Your task to perform on an android device: Add "dell xps" to the cart on costco.com Image 0: 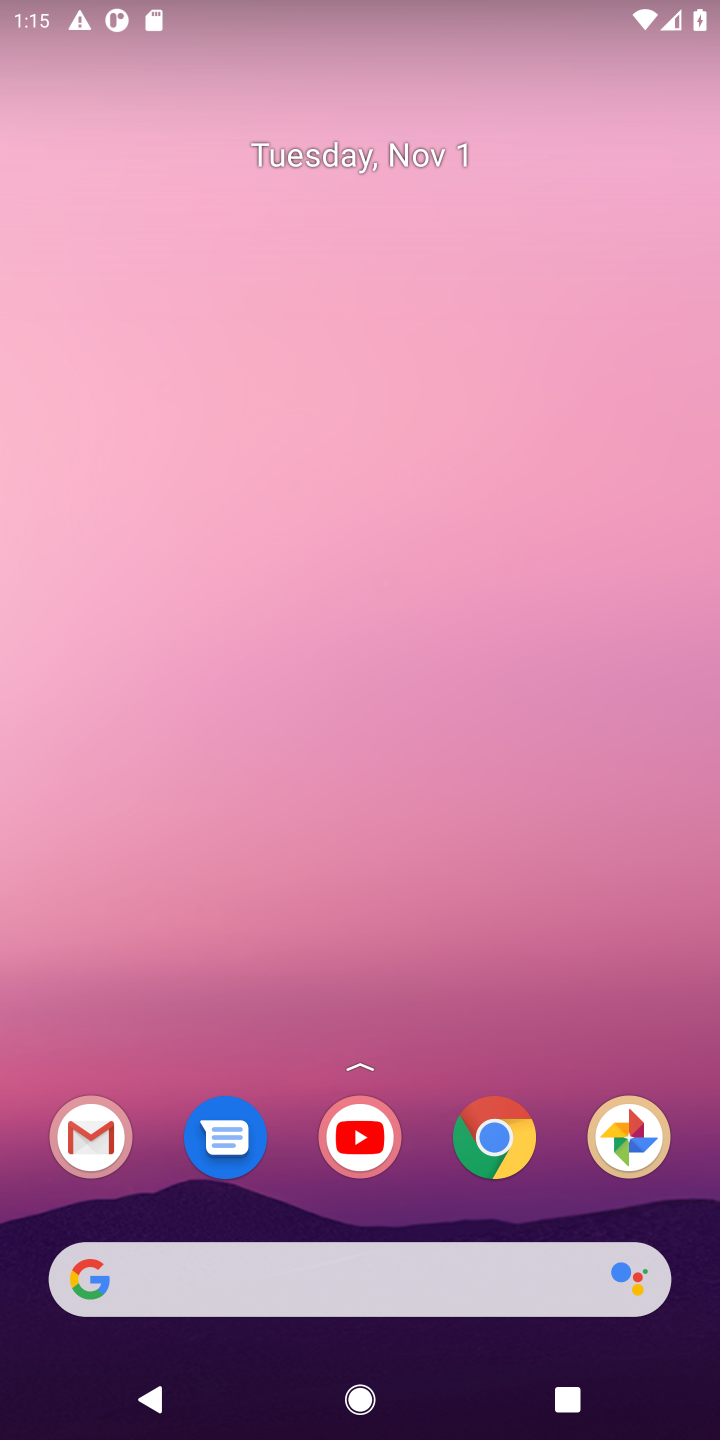
Step 0: drag from (284, 917) to (193, 216)
Your task to perform on an android device: Add "dell xps" to the cart on costco.com Image 1: 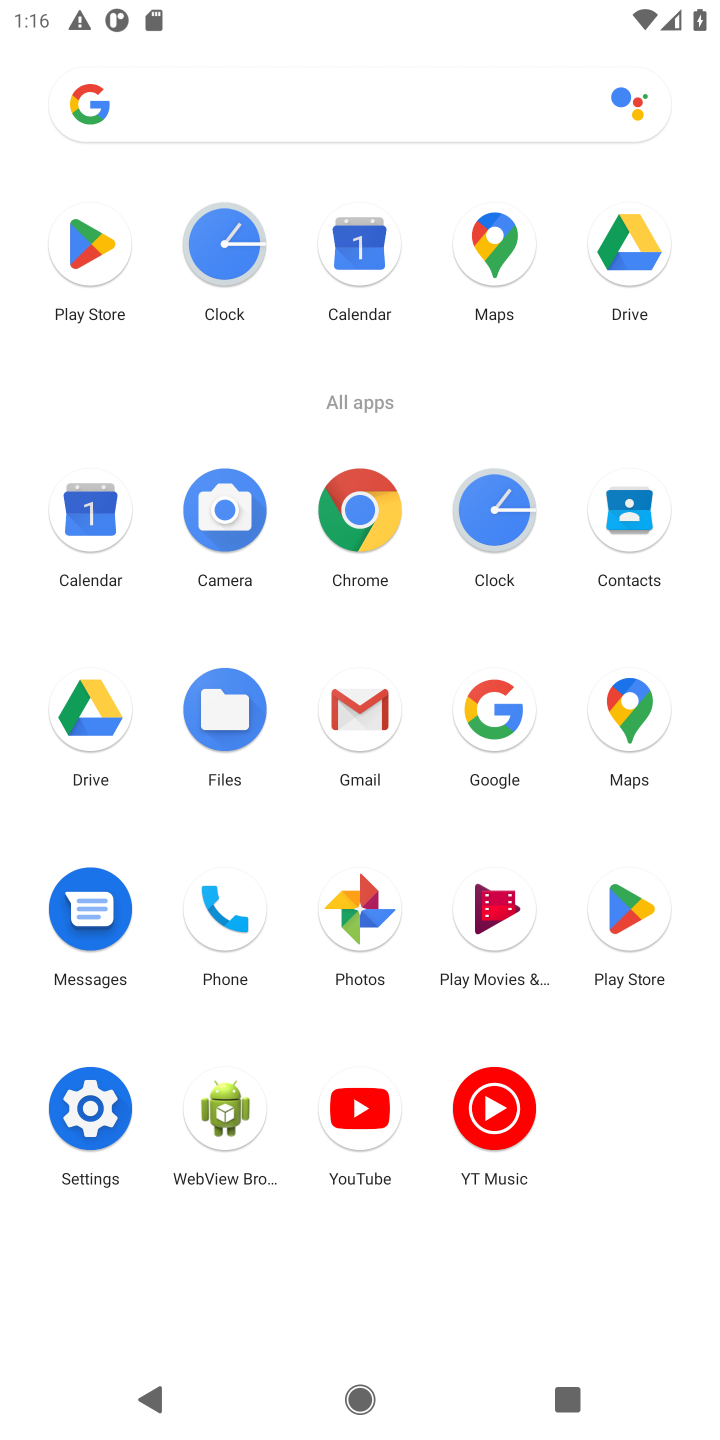
Step 1: click (355, 497)
Your task to perform on an android device: Add "dell xps" to the cart on costco.com Image 2: 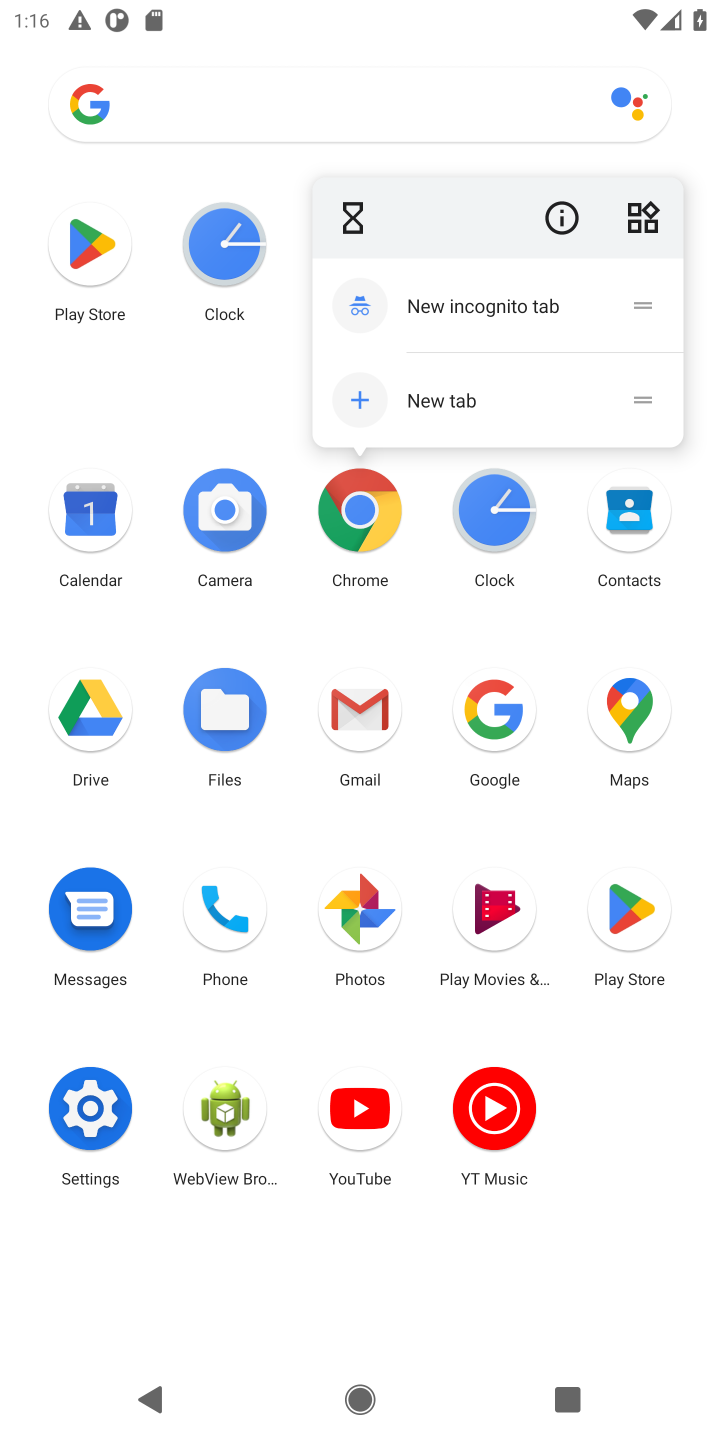
Step 2: click (343, 509)
Your task to perform on an android device: Add "dell xps" to the cart on costco.com Image 3: 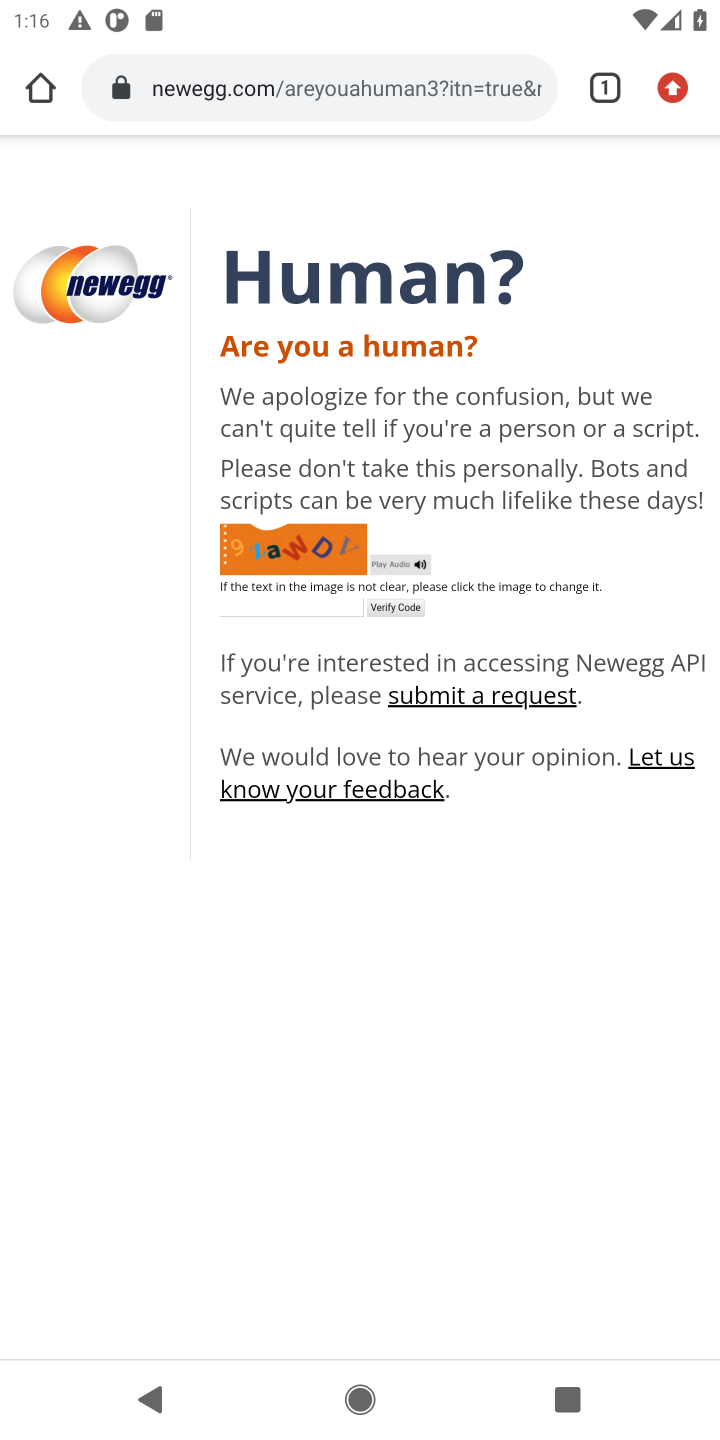
Step 3: click (384, 96)
Your task to perform on an android device: Add "dell xps" to the cart on costco.com Image 4: 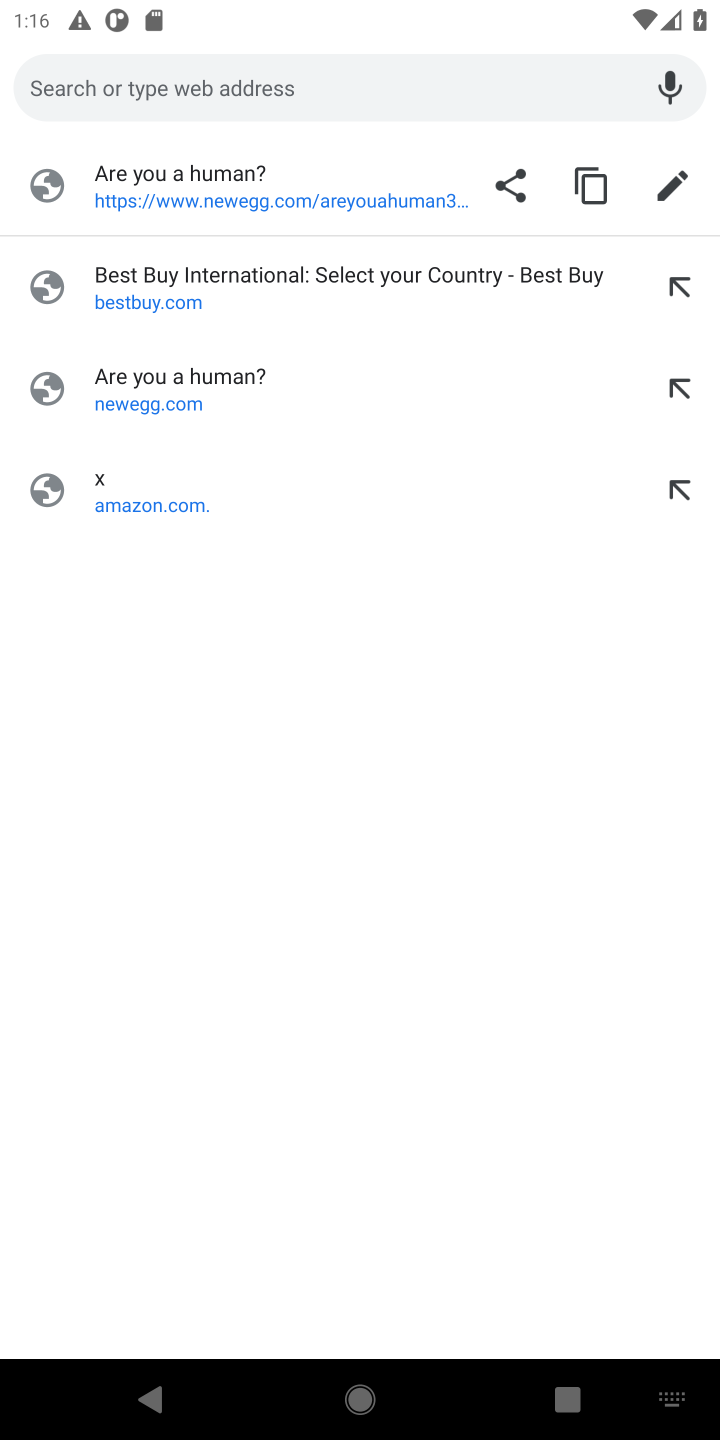
Step 4: type "costco.com"
Your task to perform on an android device: Add "dell xps" to the cart on costco.com Image 5: 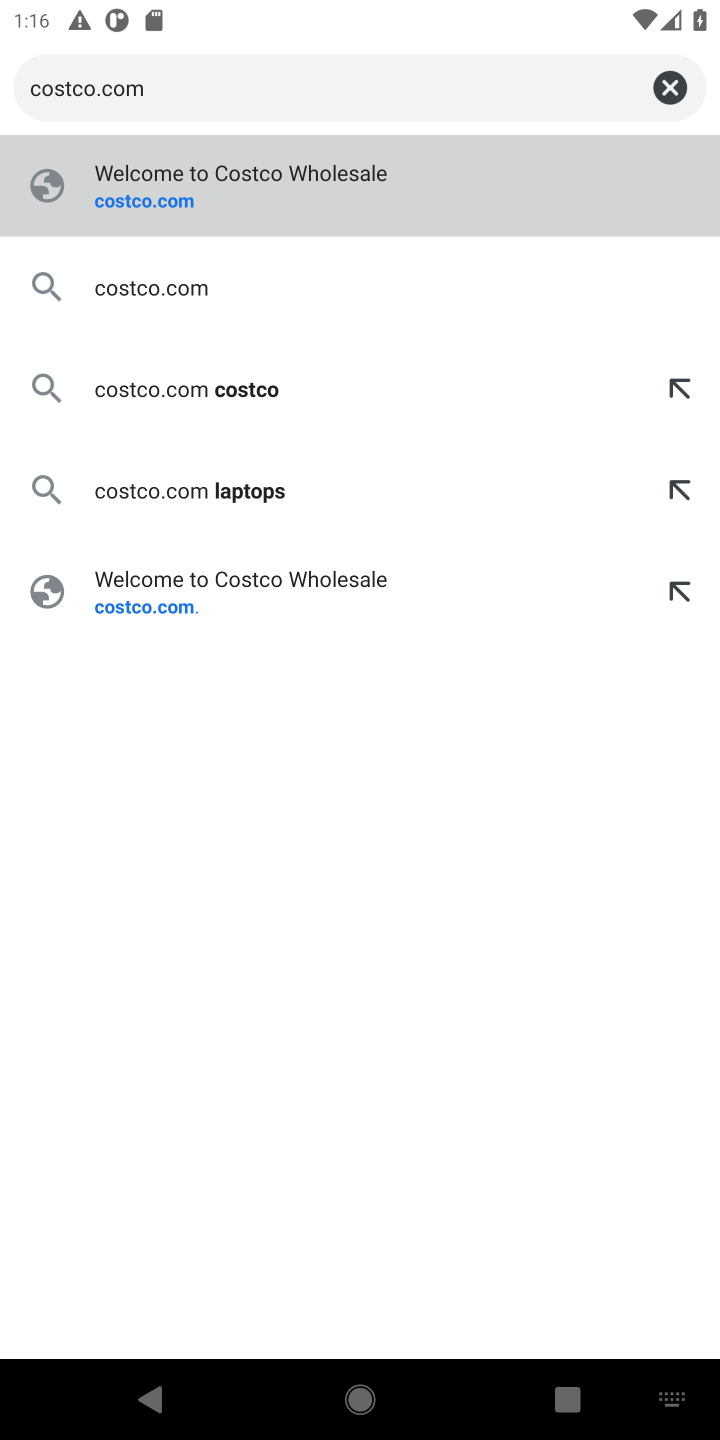
Step 5: press enter
Your task to perform on an android device: Add "dell xps" to the cart on costco.com Image 6: 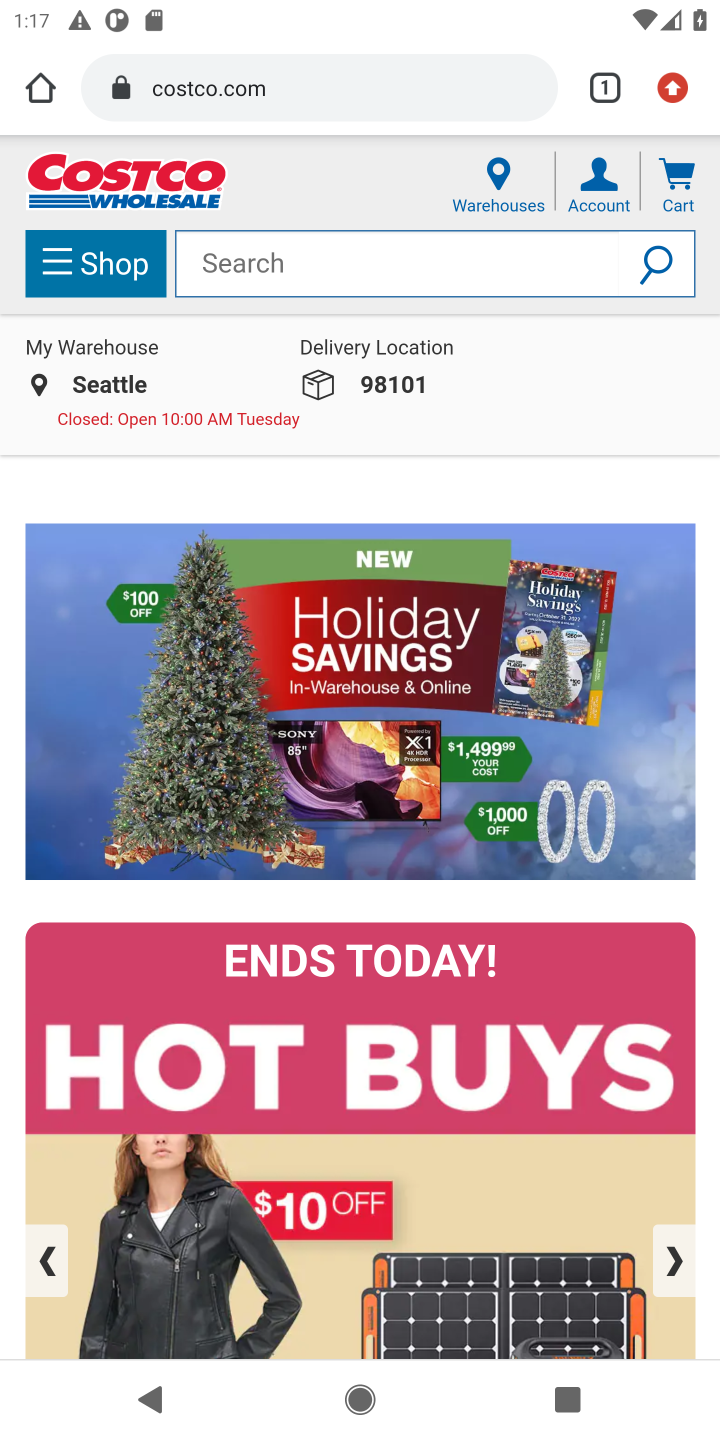
Step 6: click (303, 276)
Your task to perform on an android device: Add "dell xps" to the cart on costco.com Image 7: 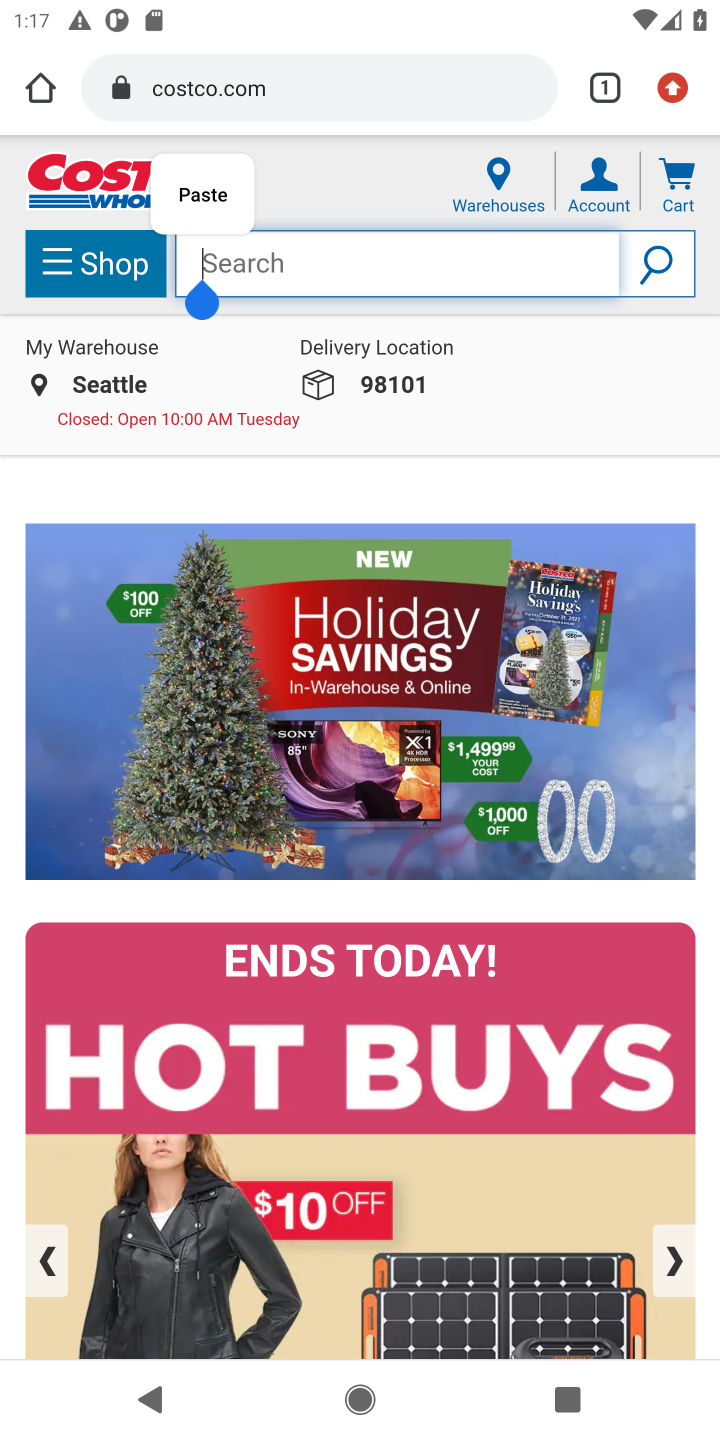
Step 7: type "dell xps"
Your task to perform on an android device: Add "dell xps" to the cart on costco.com Image 8: 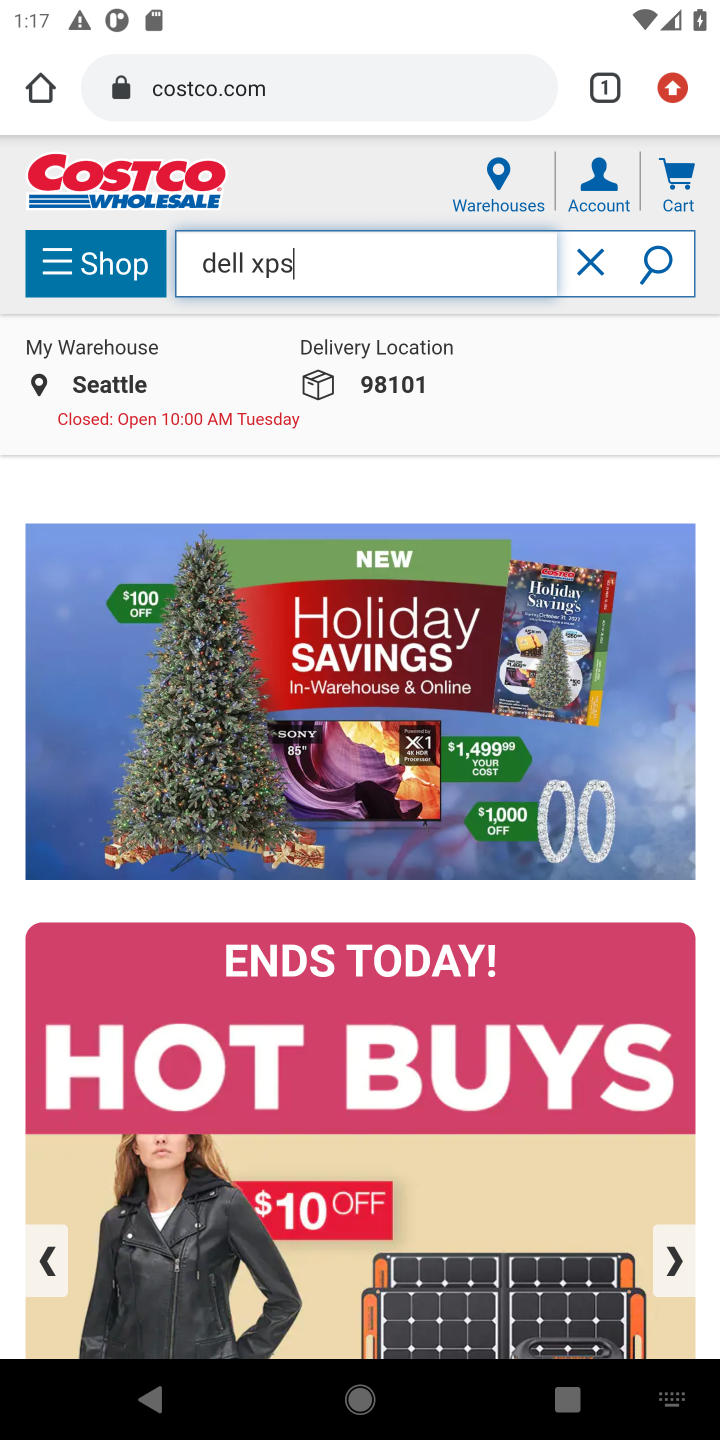
Step 8: press enter
Your task to perform on an android device: Add "dell xps" to the cart on costco.com Image 9: 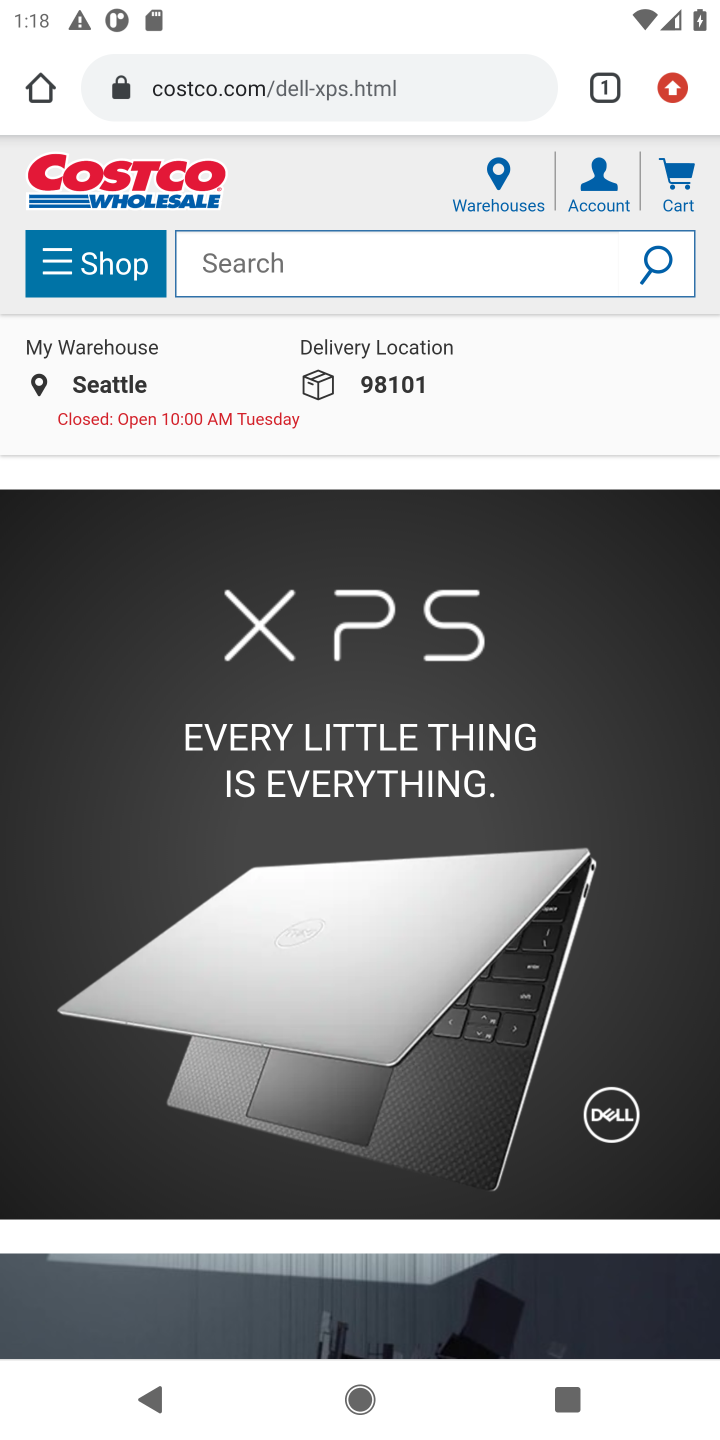
Step 9: click (500, 304)
Your task to perform on an android device: Add "dell xps" to the cart on costco.com Image 10: 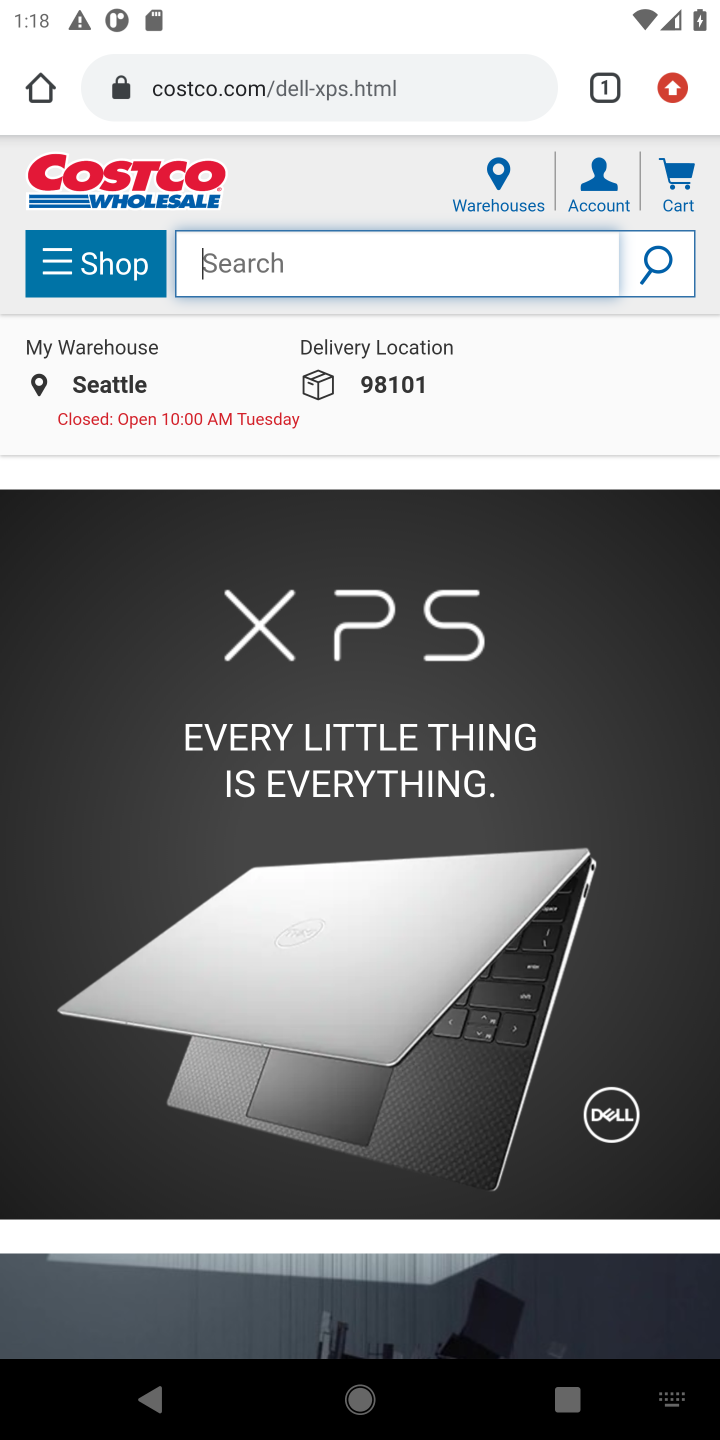
Step 10: drag from (455, 1029) to (419, 581)
Your task to perform on an android device: Add "dell xps" to the cart on costco.com Image 11: 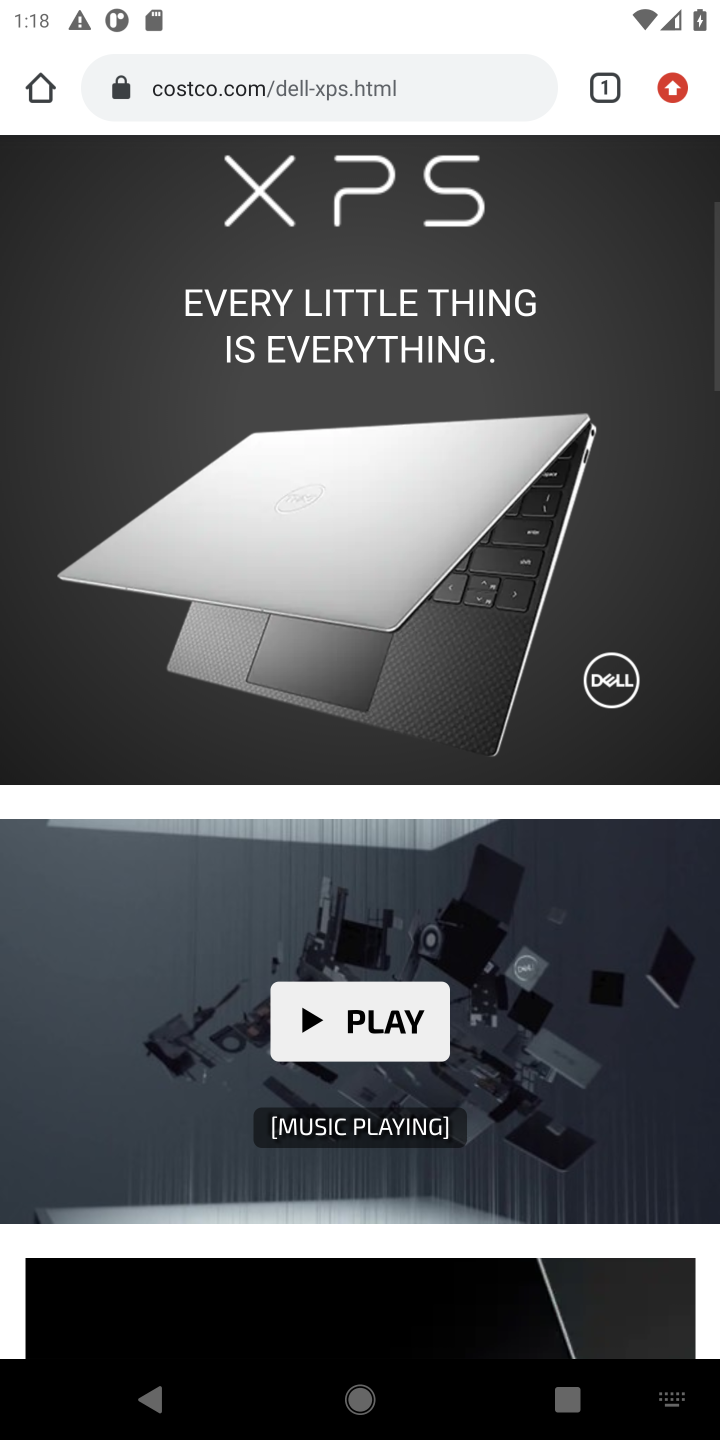
Step 11: drag from (434, 987) to (413, 437)
Your task to perform on an android device: Add "dell xps" to the cart on costco.com Image 12: 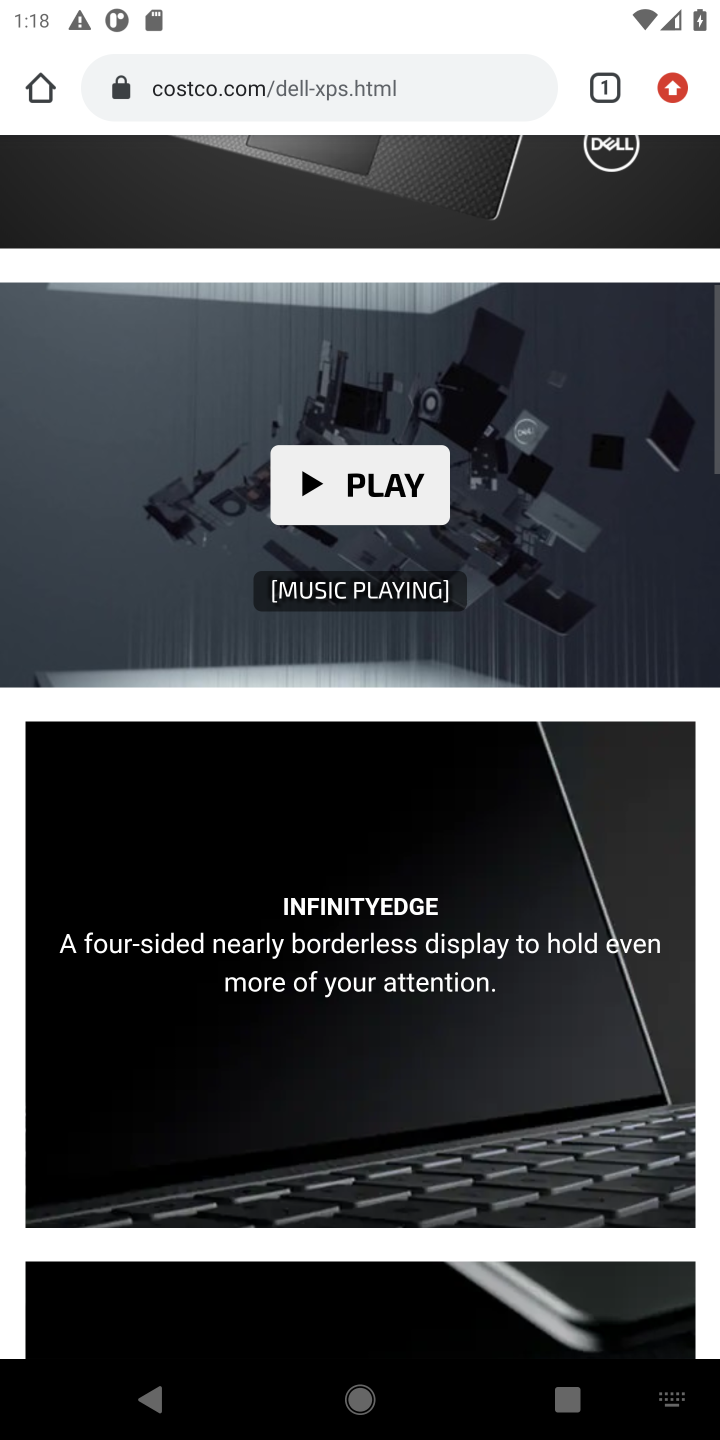
Step 12: drag from (419, 913) to (456, 302)
Your task to perform on an android device: Add "dell xps" to the cart on costco.com Image 13: 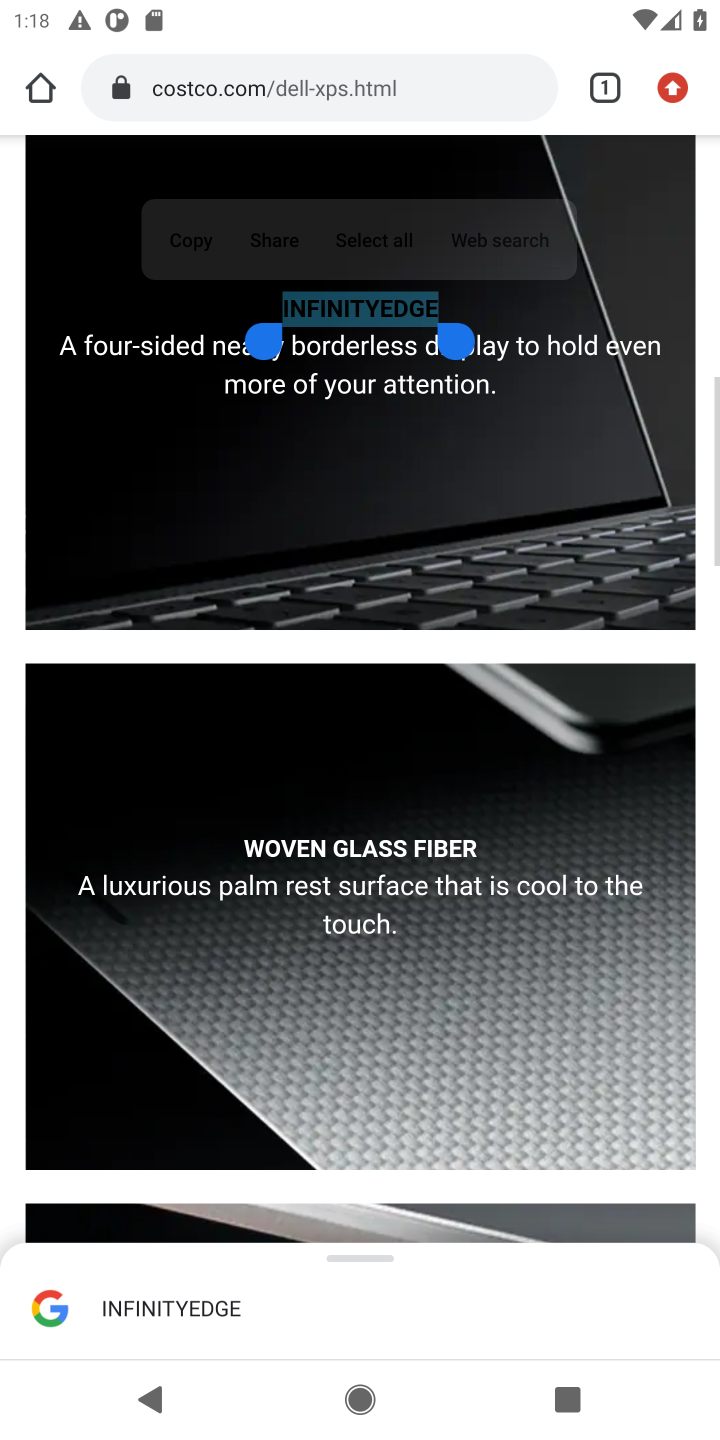
Step 13: drag from (332, 981) to (434, 420)
Your task to perform on an android device: Add "dell xps" to the cart on costco.com Image 14: 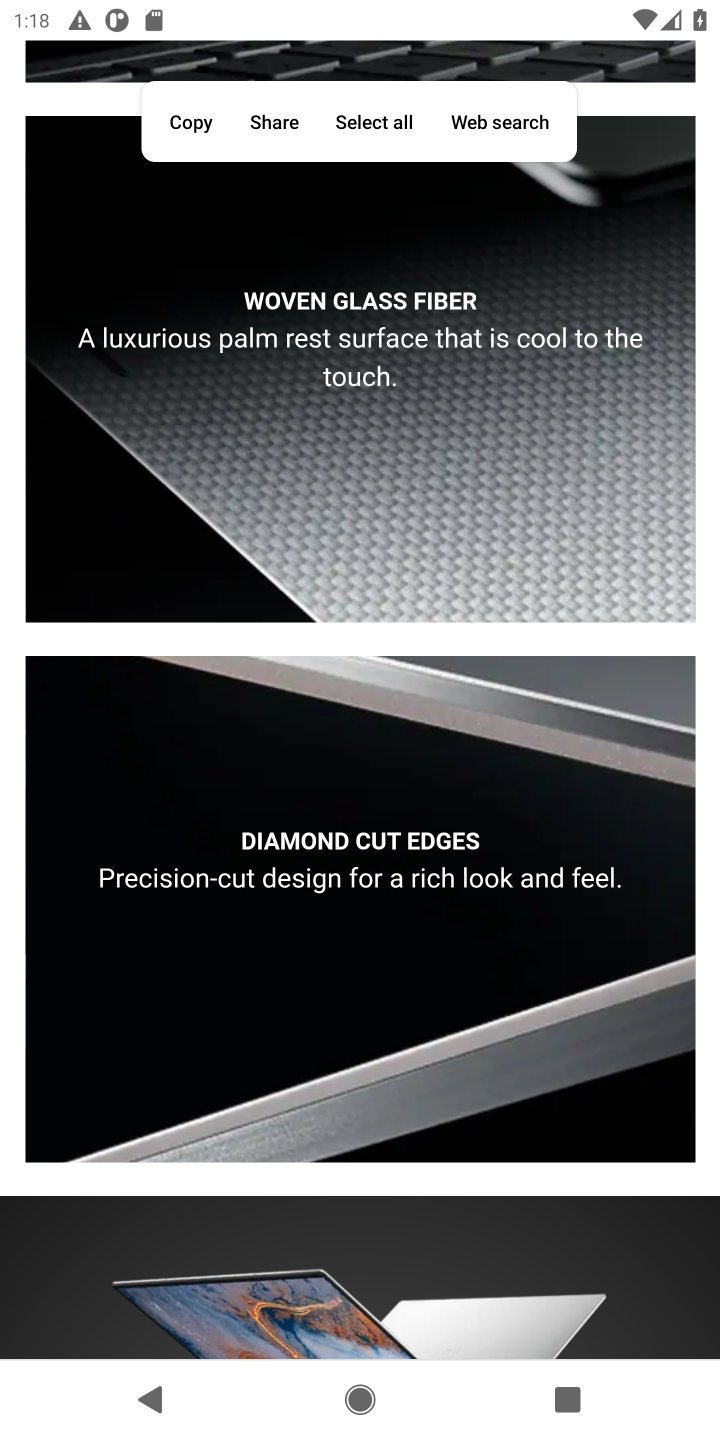
Step 14: drag from (312, 871) to (404, 186)
Your task to perform on an android device: Add "dell xps" to the cart on costco.com Image 15: 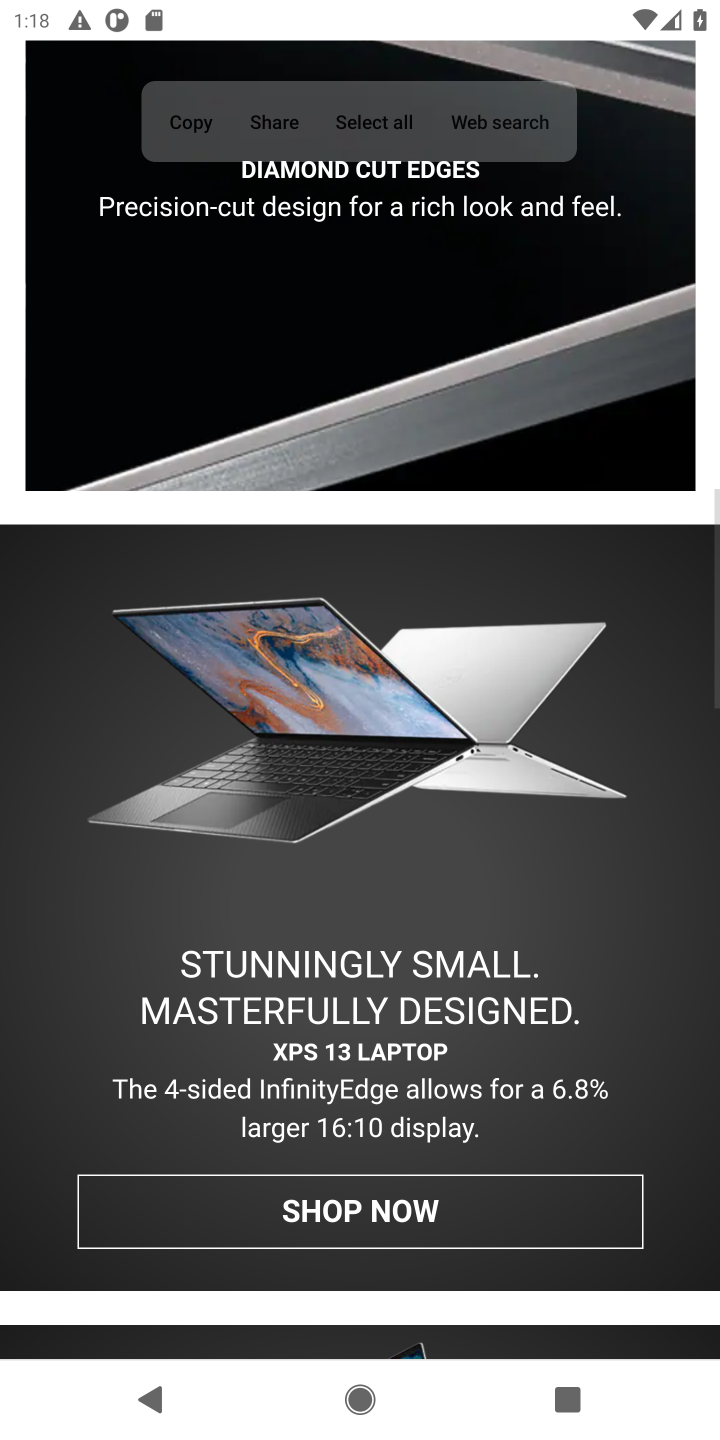
Step 15: drag from (325, 935) to (454, 365)
Your task to perform on an android device: Add "dell xps" to the cart on costco.com Image 16: 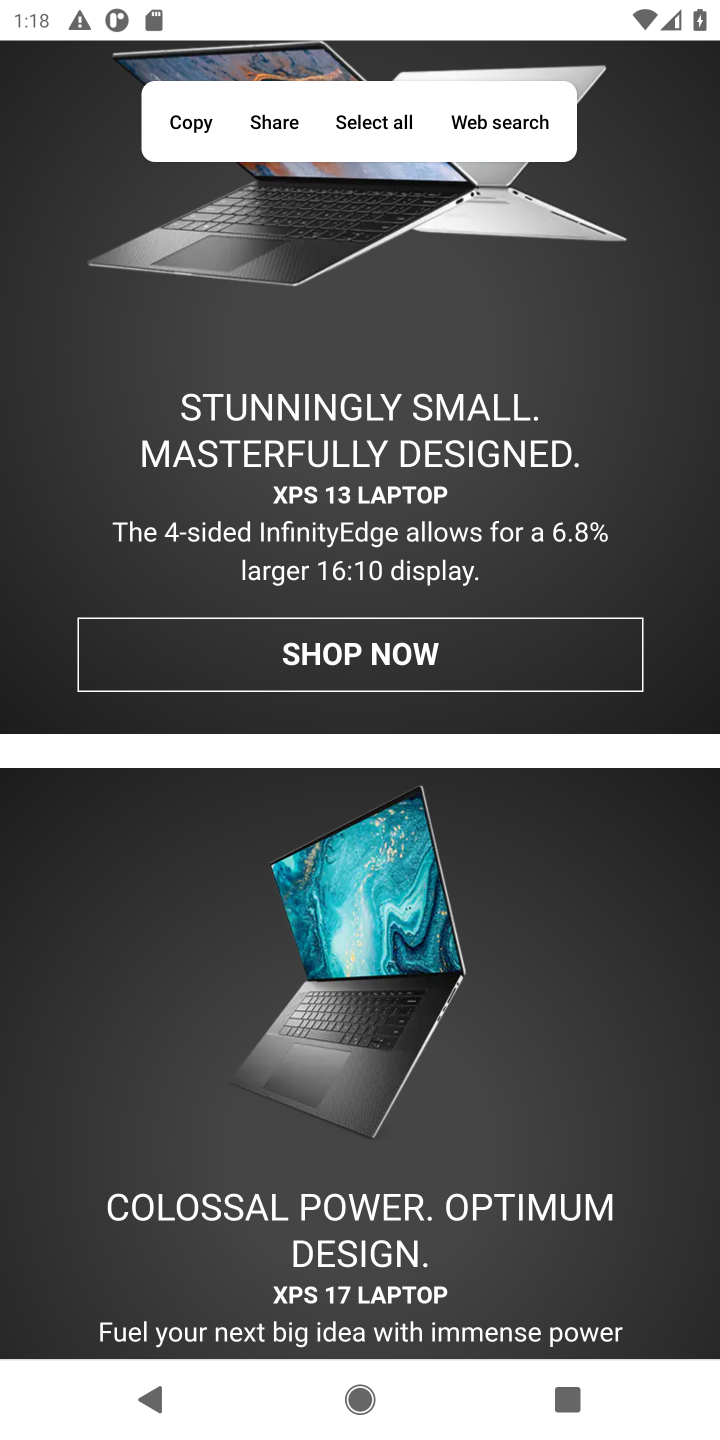
Step 16: drag from (299, 958) to (394, 330)
Your task to perform on an android device: Add "dell xps" to the cart on costco.com Image 17: 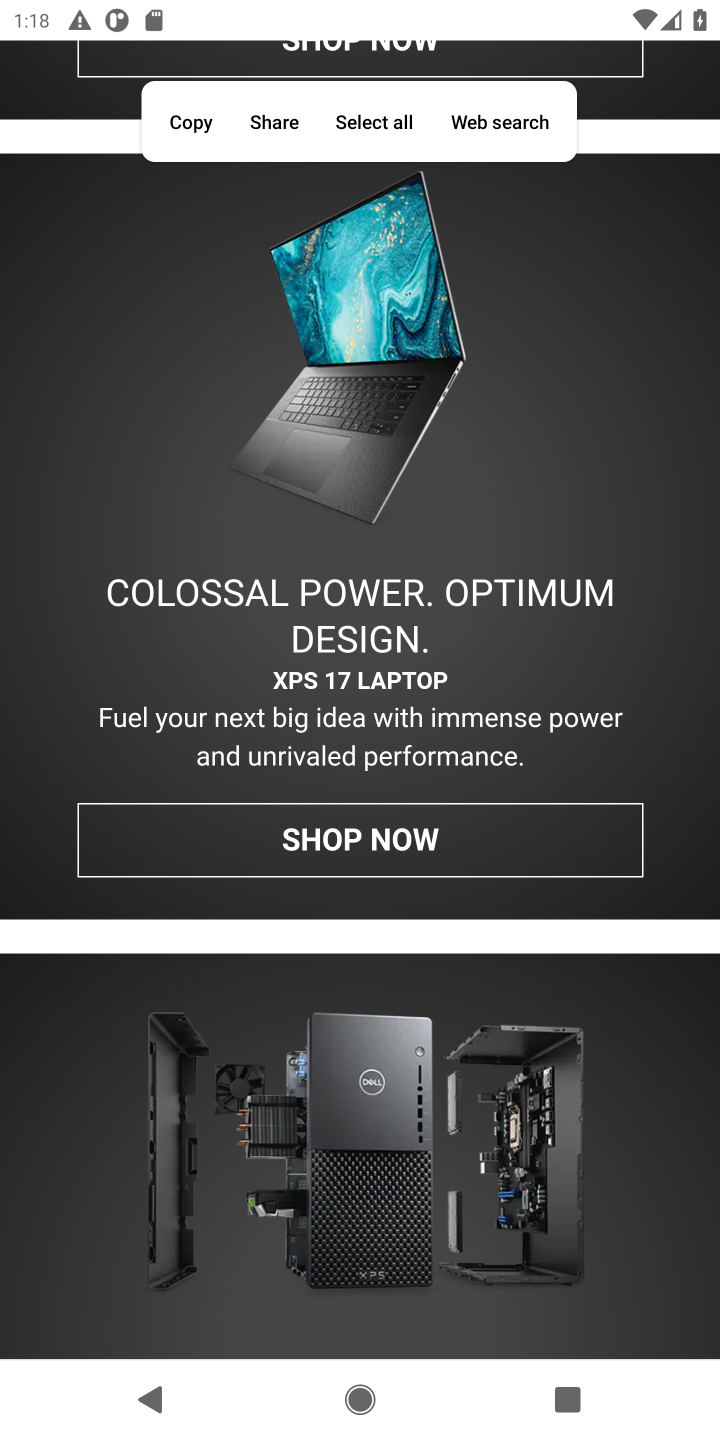
Step 17: click (281, 860)
Your task to perform on an android device: Add "dell xps" to the cart on costco.com Image 18: 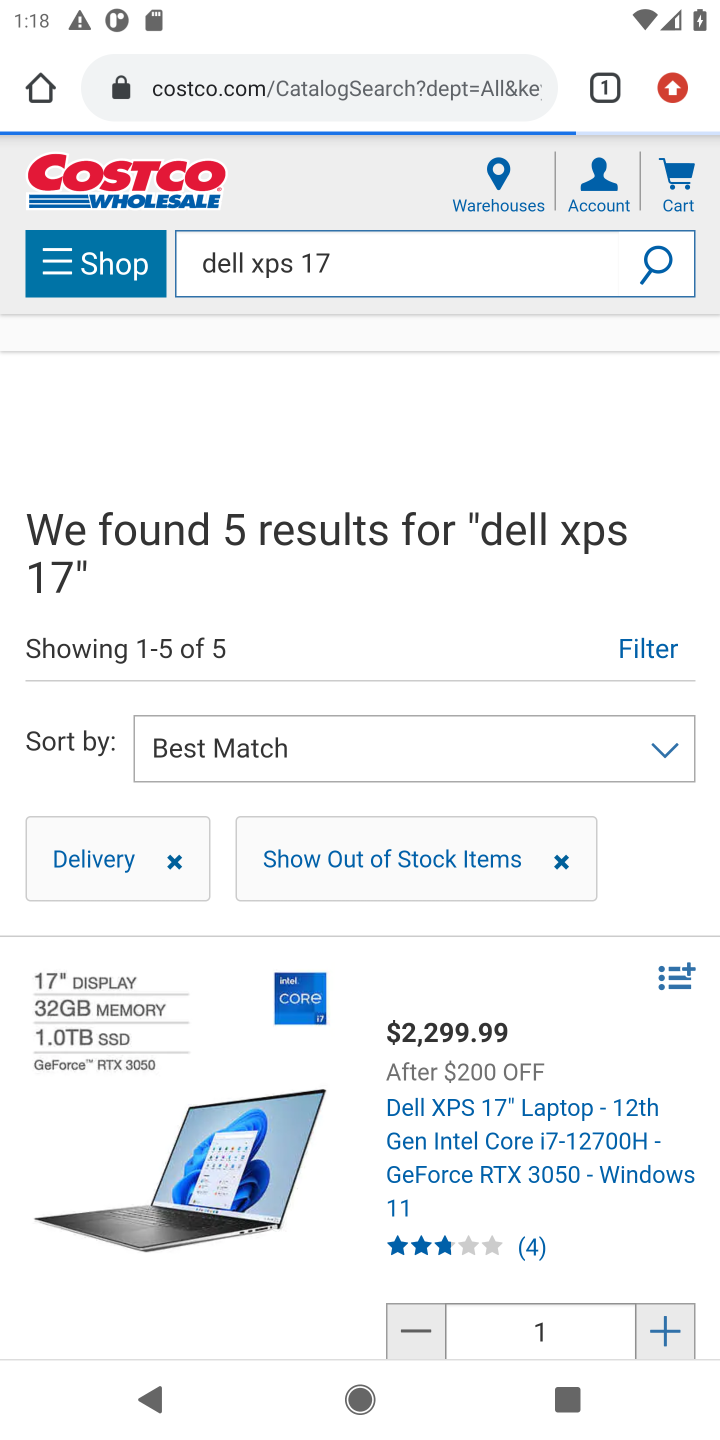
Step 18: drag from (349, 1094) to (363, 475)
Your task to perform on an android device: Add "dell xps" to the cart on costco.com Image 19: 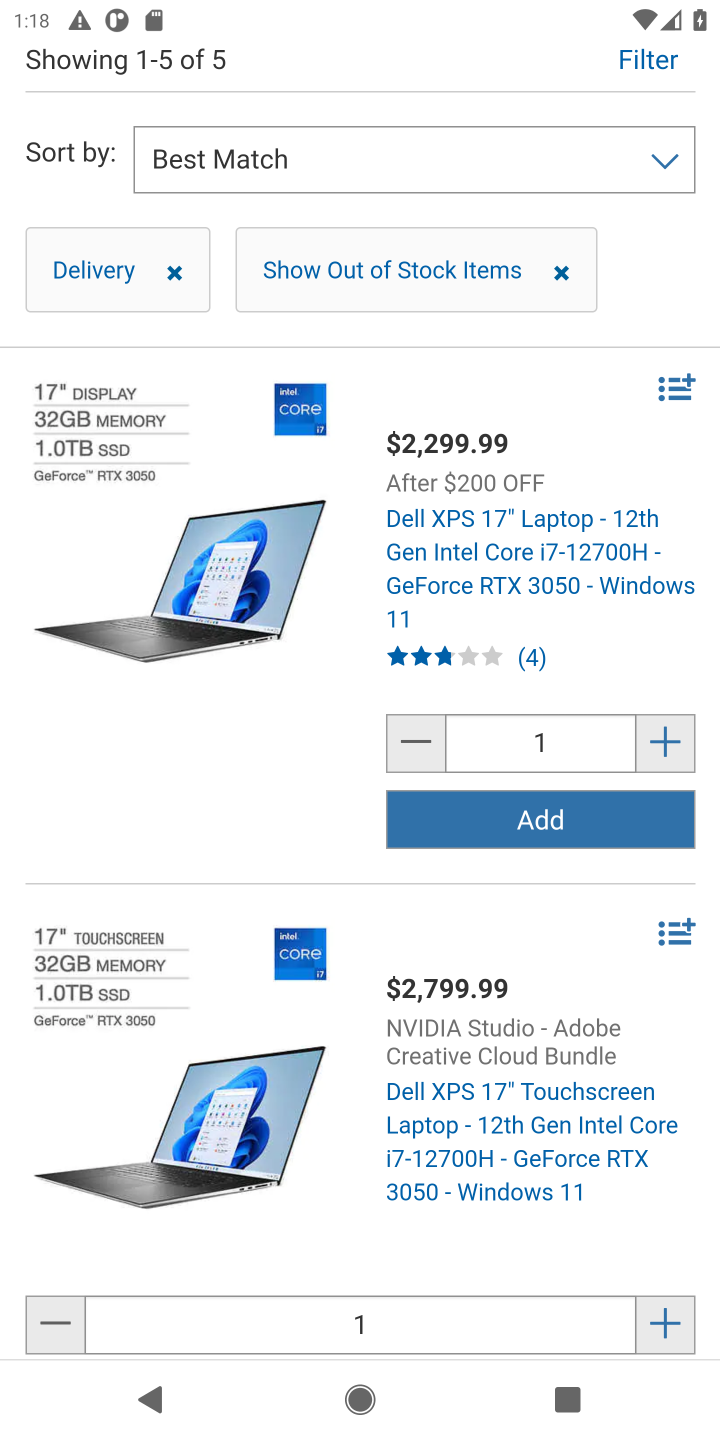
Step 19: click (528, 820)
Your task to perform on an android device: Add "dell xps" to the cart on costco.com Image 20: 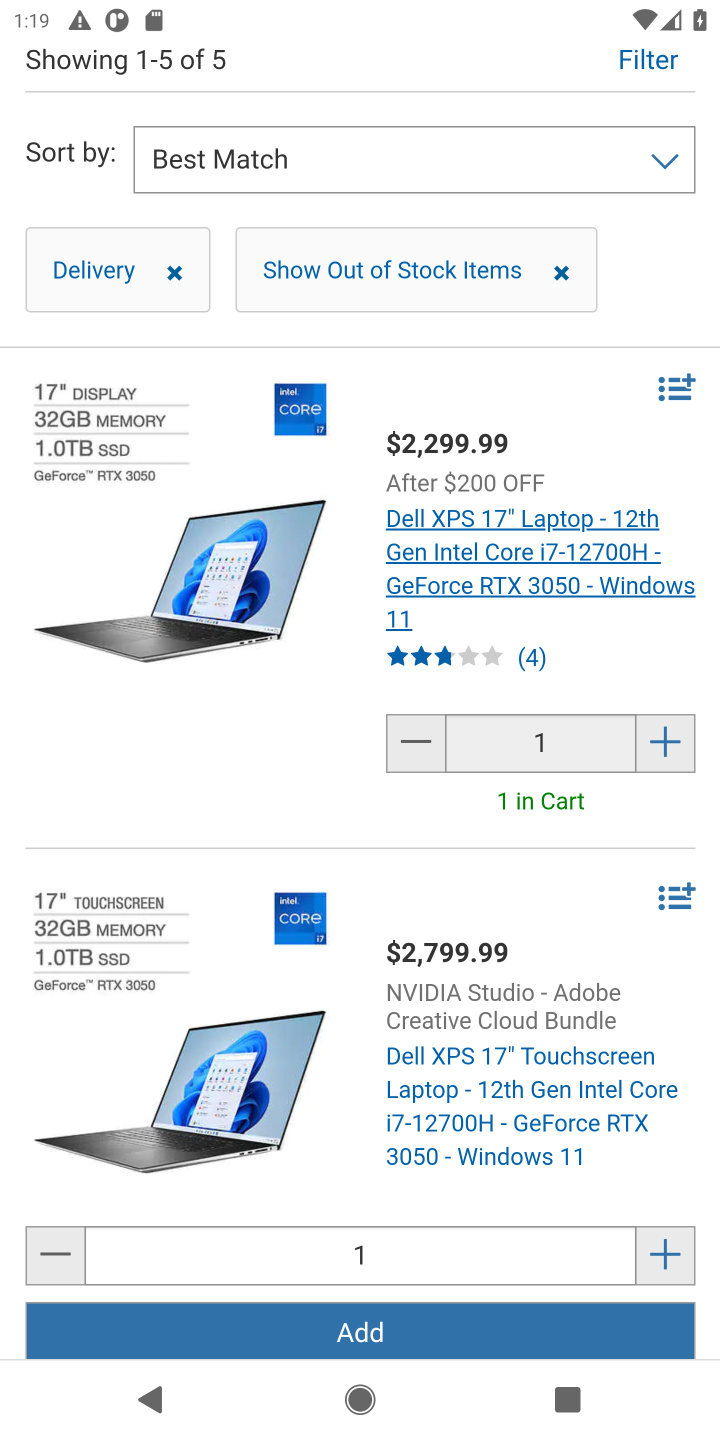
Step 20: task complete